Your task to perform on an android device: Go to settings Image 0: 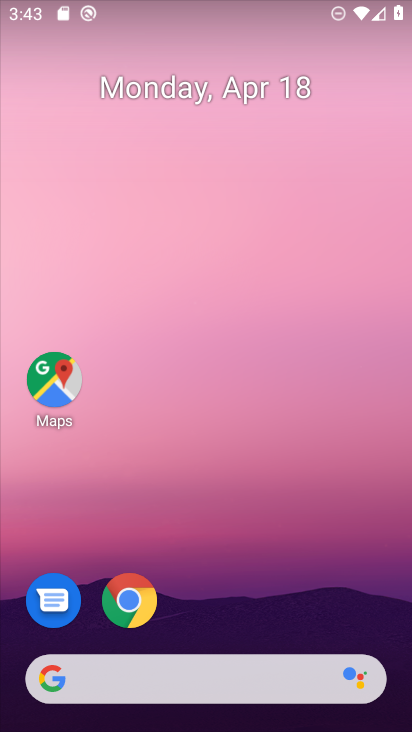
Step 0: drag from (237, 705) to (198, 127)
Your task to perform on an android device: Go to settings Image 1: 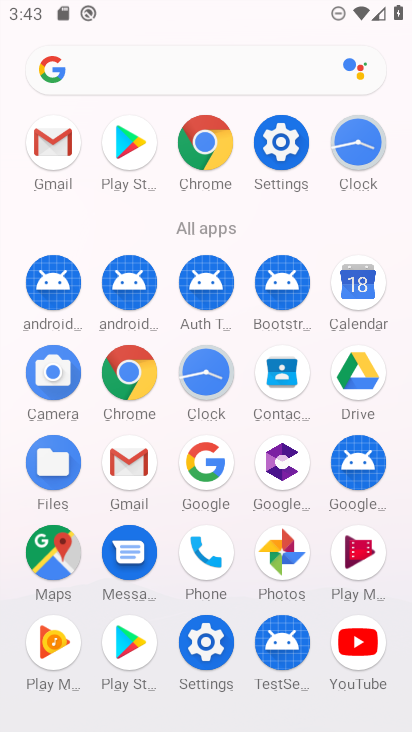
Step 1: click (272, 144)
Your task to perform on an android device: Go to settings Image 2: 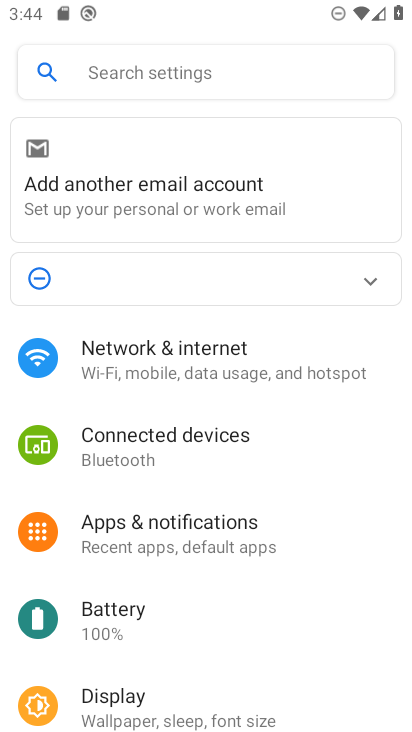
Step 2: click (251, 83)
Your task to perform on an android device: Go to settings Image 3: 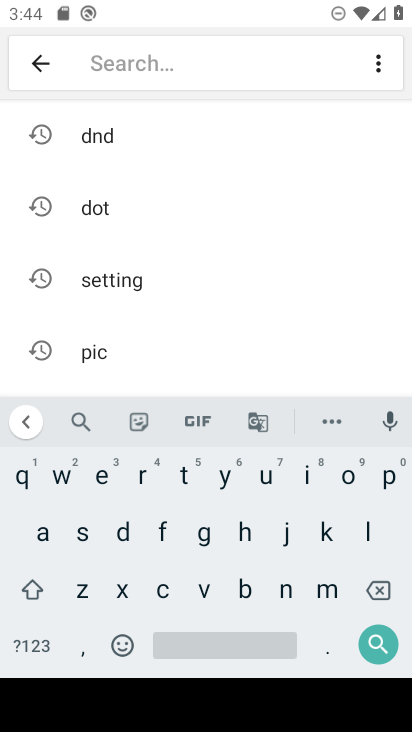
Step 3: click (124, 281)
Your task to perform on an android device: Go to settings Image 4: 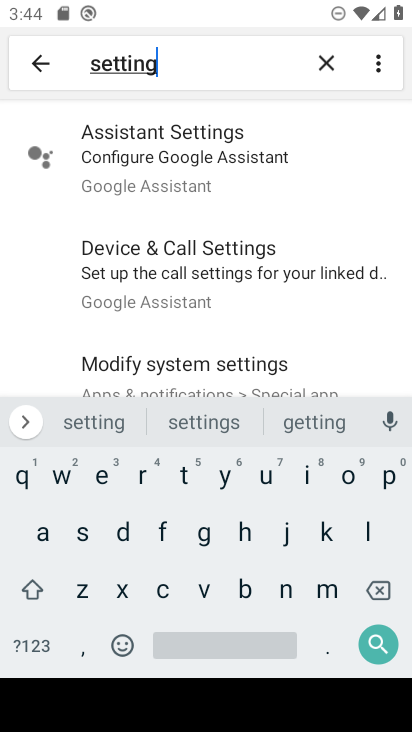
Step 4: click (182, 162)
Your task to perform on an android device: Go to settings Image 5: 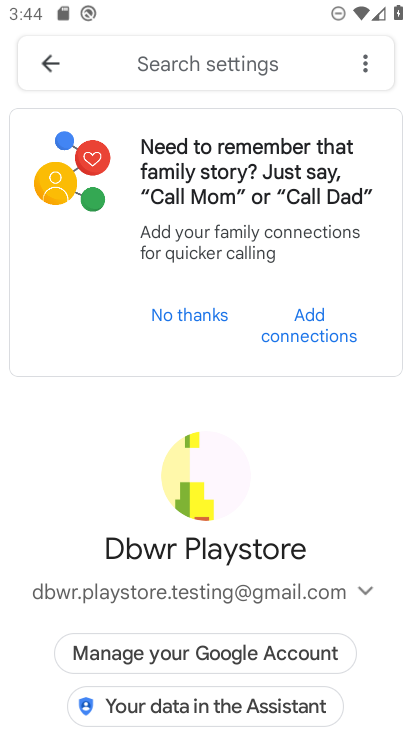
Step 5: task complete